Your task to perform on an android device: Open Maps and search for coffee Image 0: 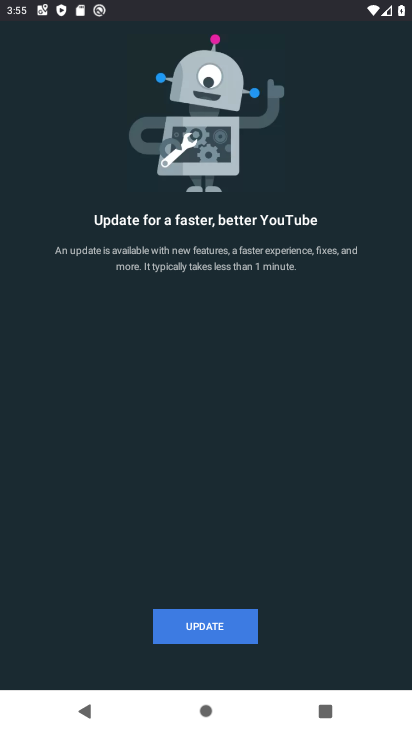
Step 0: press home button
Your task to perform on an android device: Open Maps and search for coffee Image 1: 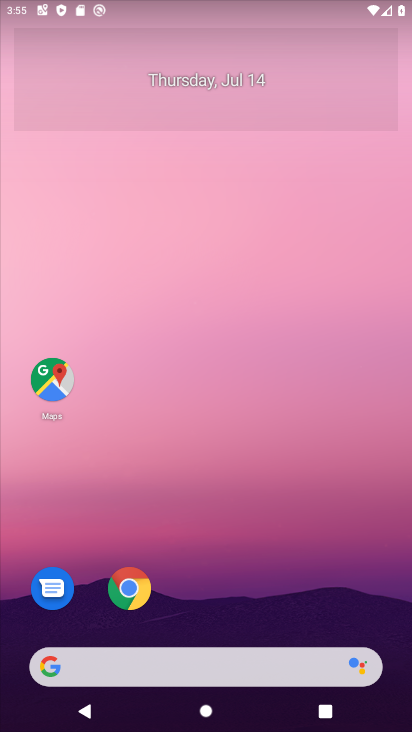
Step 1: drag from (296, 584) to (282, 150)
Your task to perform on an android device: Open Maps and search for coffee Image 2: 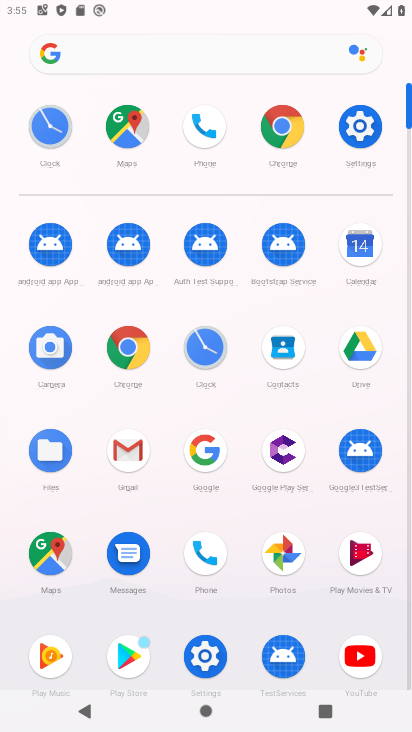
Step 2: click (137, 121)
Your task to perform on an android device: Open Maps and search for coffee Image 3: 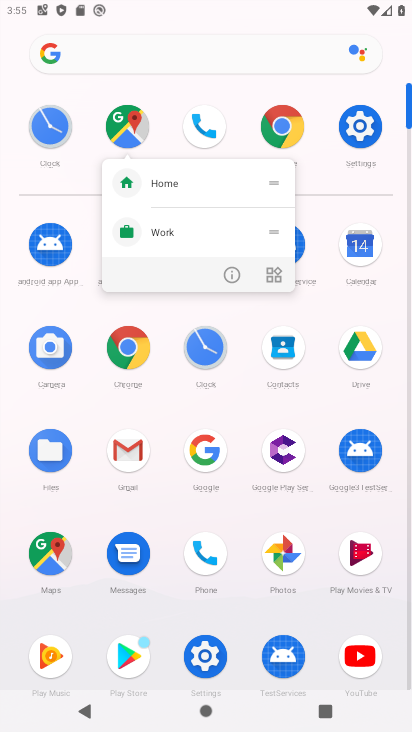
Step 3: click (137, 120)
Your task to perform on an android device: Open Maps and search for coffee Image 4: 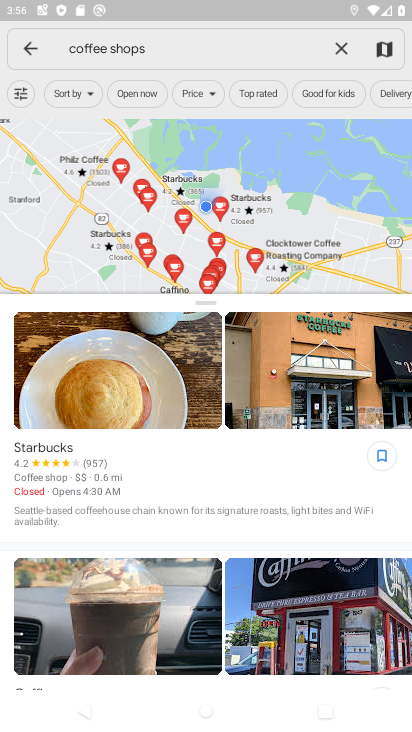
Step 4: click (233, 54)
Your task to perform on an android device: Open Maps and search for coffee Image 5: 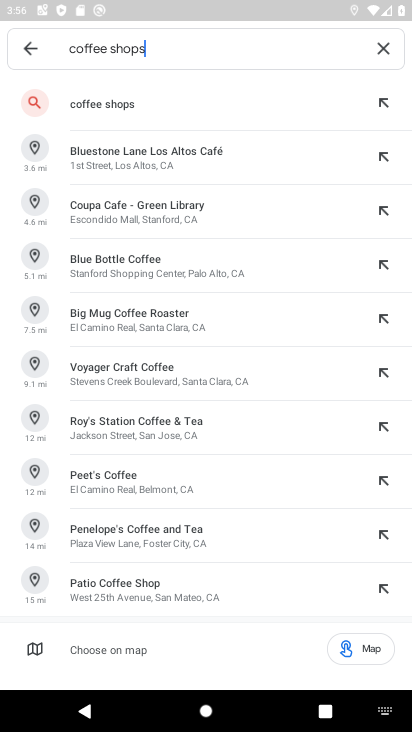
Step 5: click (390, 45)
Your task to perform on an android device: Open Maps and search for coffee Image 6: 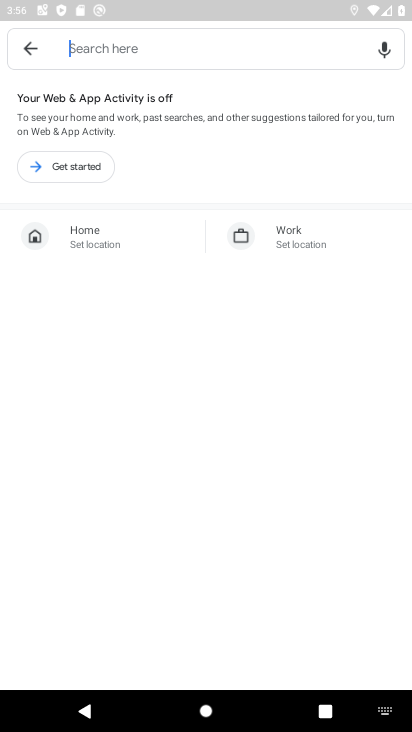
Step 6: type "coffee"
Your task to perform on an android device: Open Maps and search for coffee Image 7: 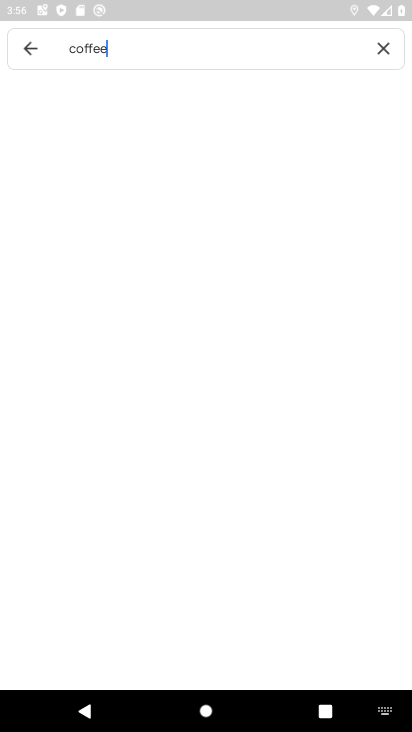
Step 7: press enter
Your task to perform on an android device: Open Maps and search for coffee Image 8: 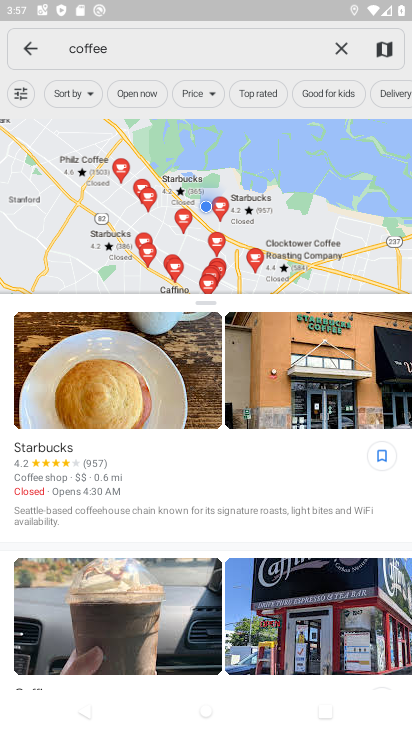
Step 8: task complete